Your task to perform on an android device: open device folders in google photos Image 0: 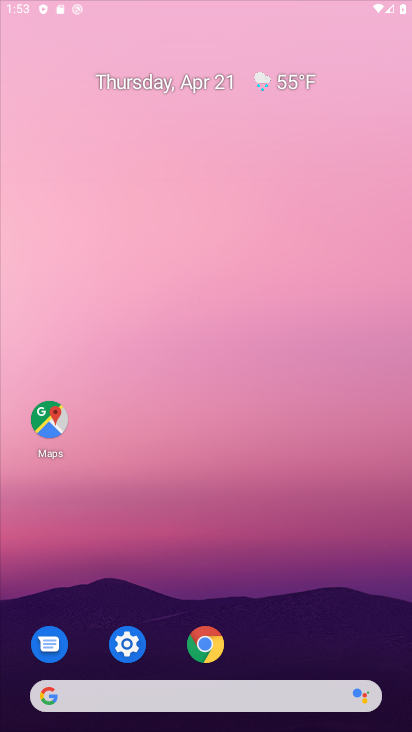
Step 0: drag from (290, 726) to (164, 164)
Your task to perform on an android device: open device folders in google photos Image 1: 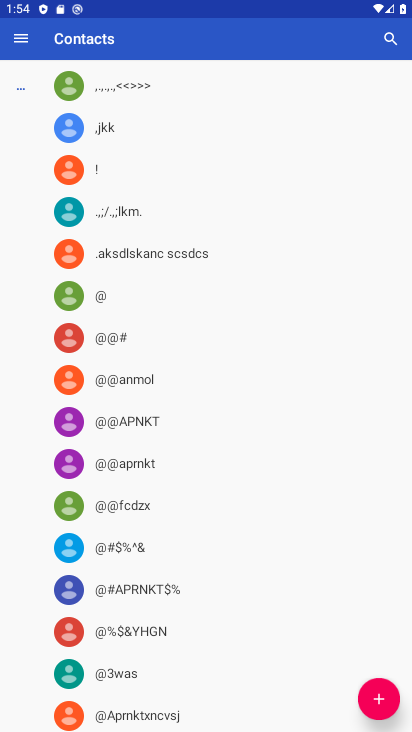
Step 1: press home button
Your task to perform on an android device: open device folders in google photos Image 2: 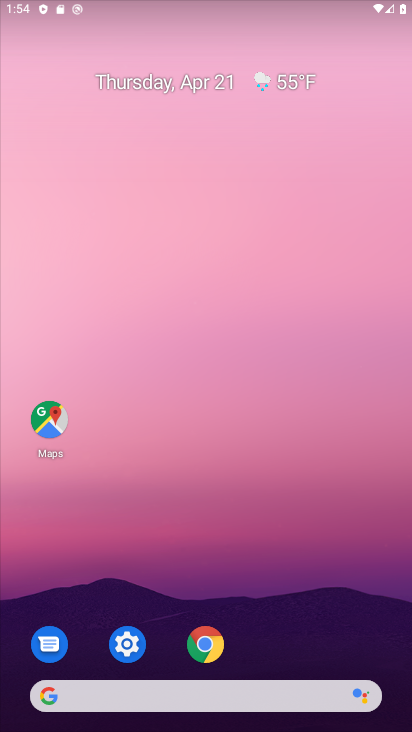
Step 2: drag from (290, 677) to (89, 236)
Your task to perform on an android device: open device folders in google photos Image 3: 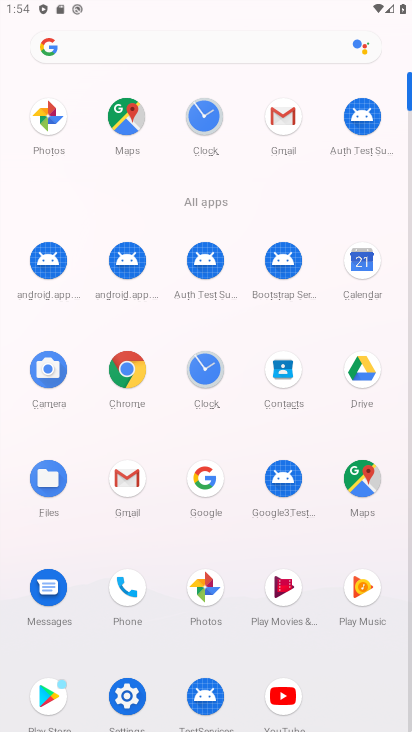
Step 3: click (198, 596)
Your task to perform on an android device: open device folders in google photos Image 4: 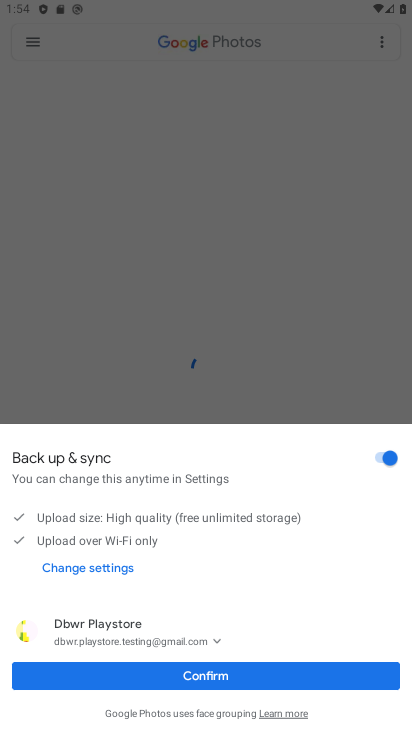
Step 4: click (224, 672)
Your task to perform on an android device: open device folders in google photos Image 5: 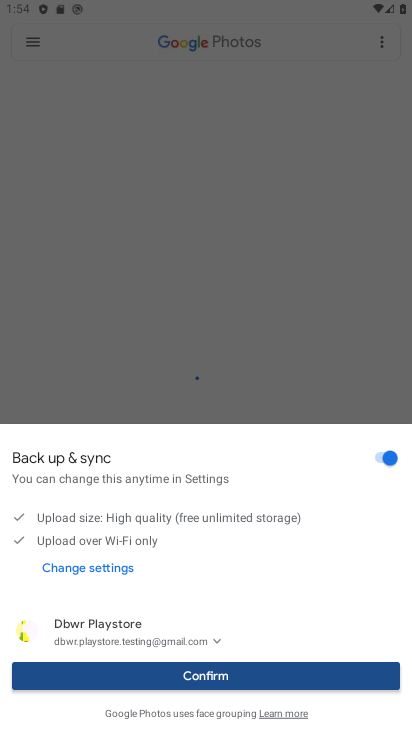
Step 5: click (225, 665)
Your task to perform on an android device: open device folders in google photos Image 6: 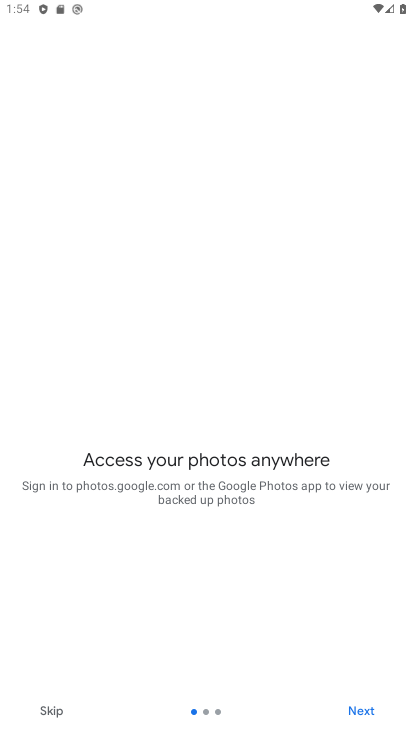
Step 6: click (47, 709)
Your task to perform on an android device: open device folders in google photos Image 7: 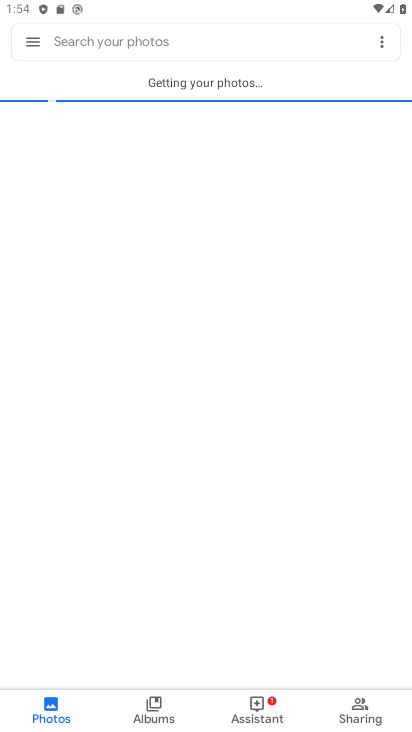
Step 7: click (32, 45)
Your task to perform on an android device: open device folders in google photos Image 8: 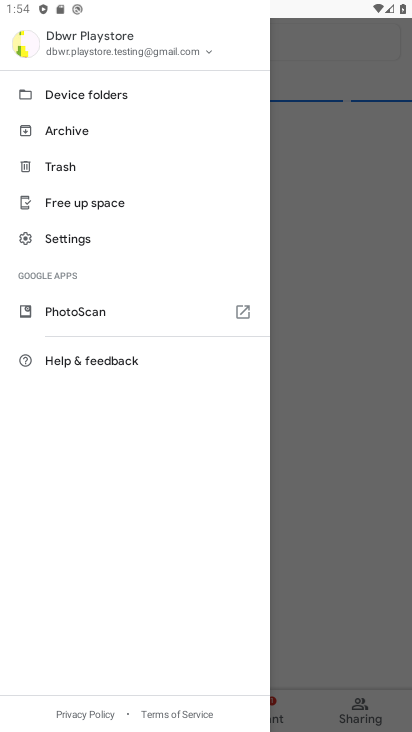
Step 8: click (72, 91)
Your task to perform on an android device: open device folders in google photos Image 9: 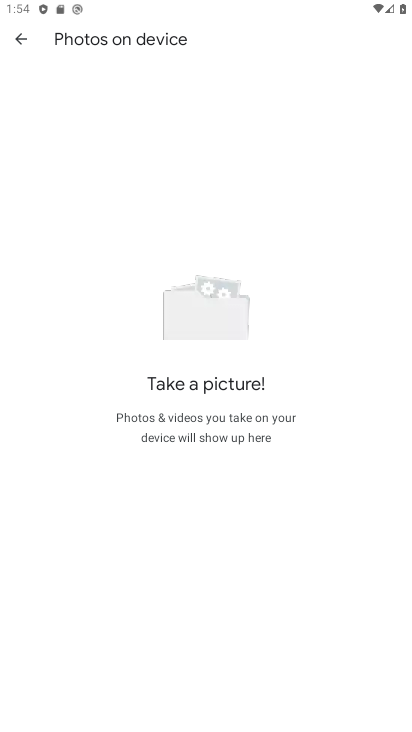
Step 9: task complete